Your task to perform on an android device: toggle translation in the chrome app Image 0: 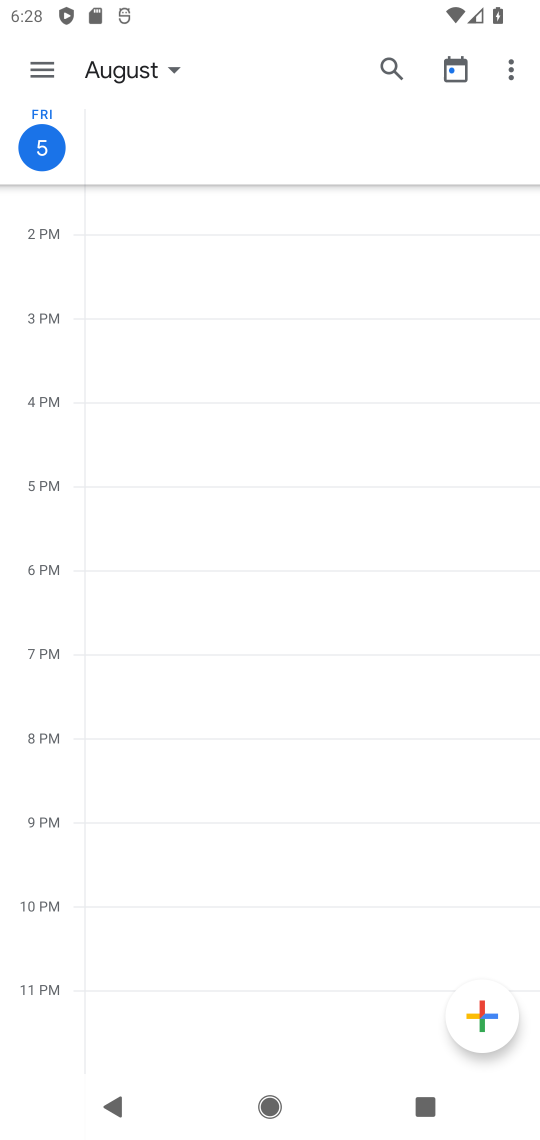
Step 0: press home button
Your task to perform on an android device: toggle translation in the chrome app Image 1: 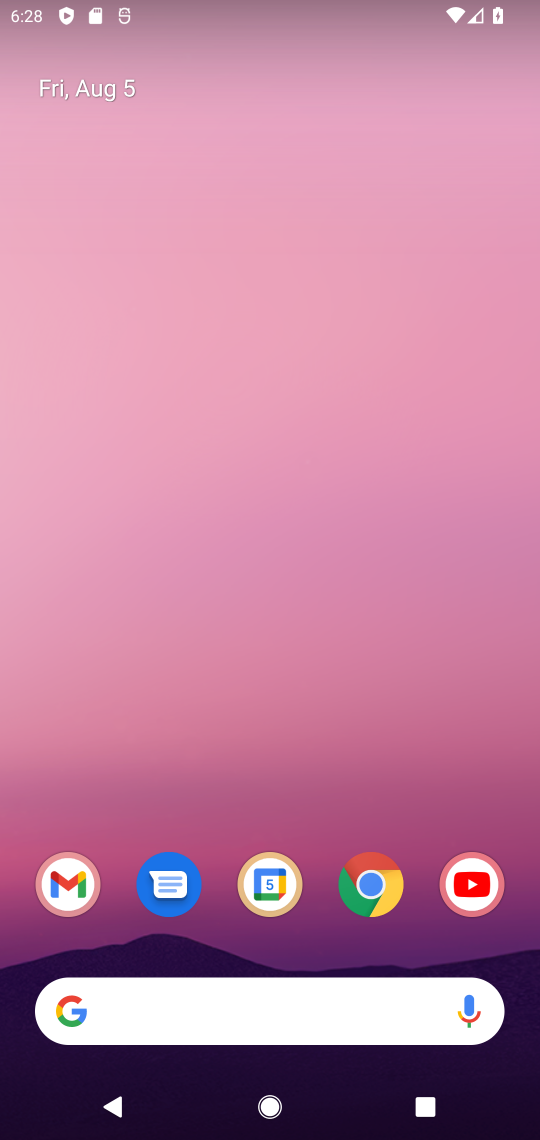
Step 1: drag from (309, 810) to (300, 3)
Your task to perform on an android device: toggle translation in the chrome app Image 2: 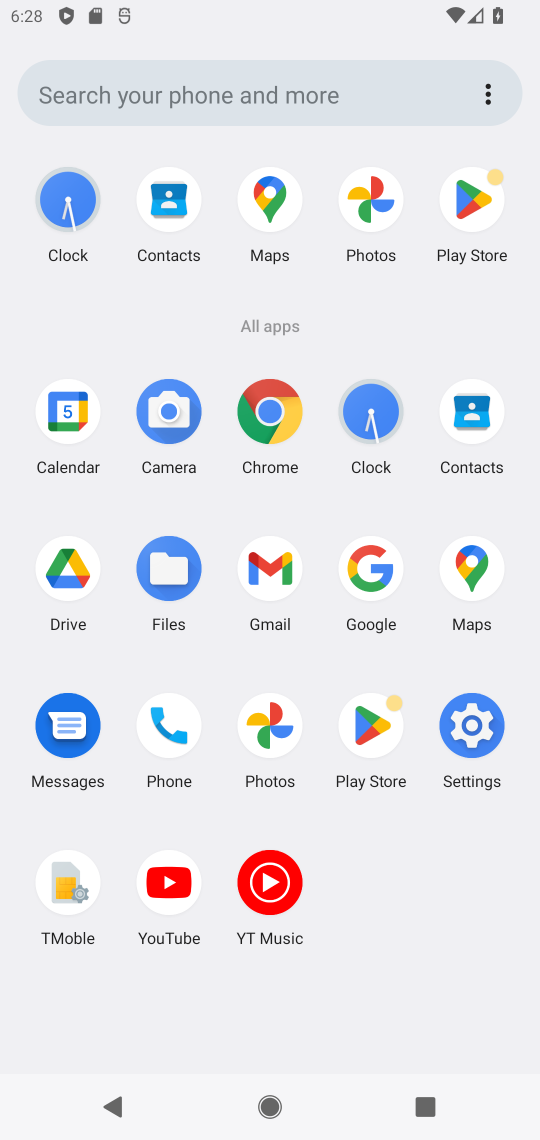
Step 2: click (264, 404)
Your task to perform on an android device: toggle translation in the chrome app Image 3: 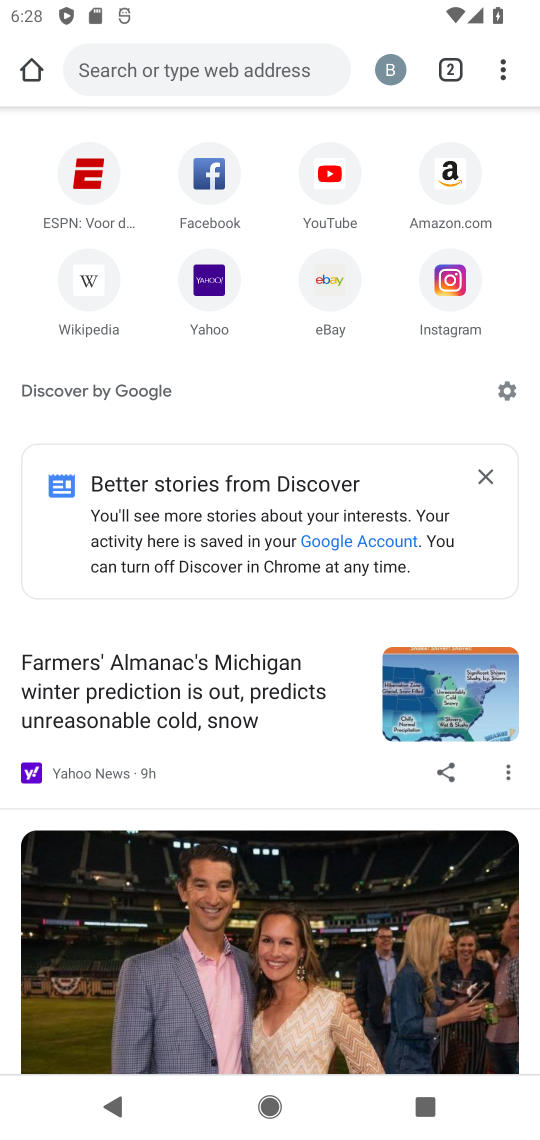
Step 3: click (494, 71)
Your task to perform on an android device: toggle translation in the chrome app Image 4: 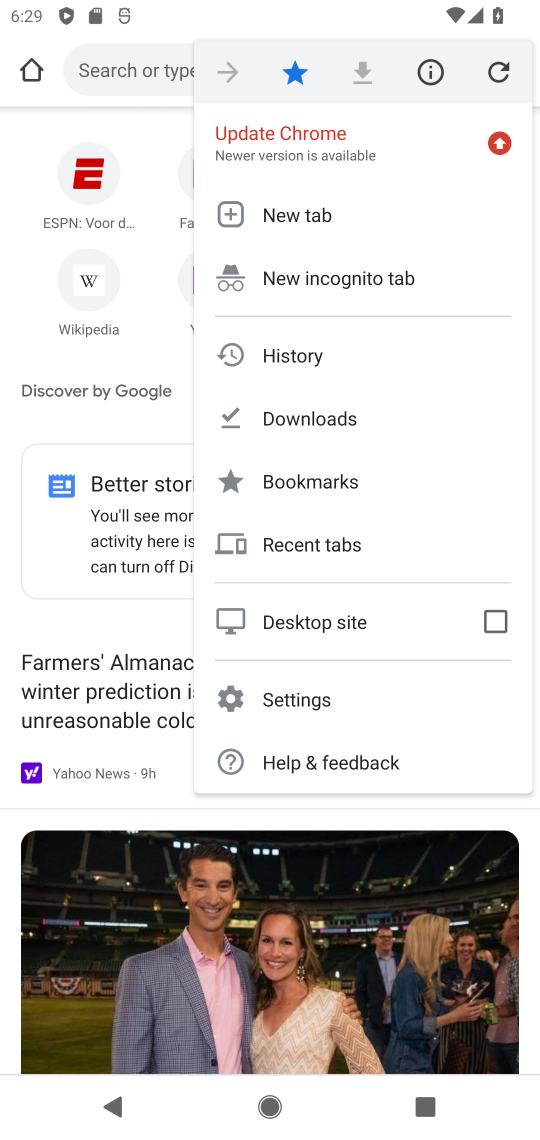
Step 4: click (335, 702)
Your task to perform on an android device: toggle translation in the chrome app Image 5: 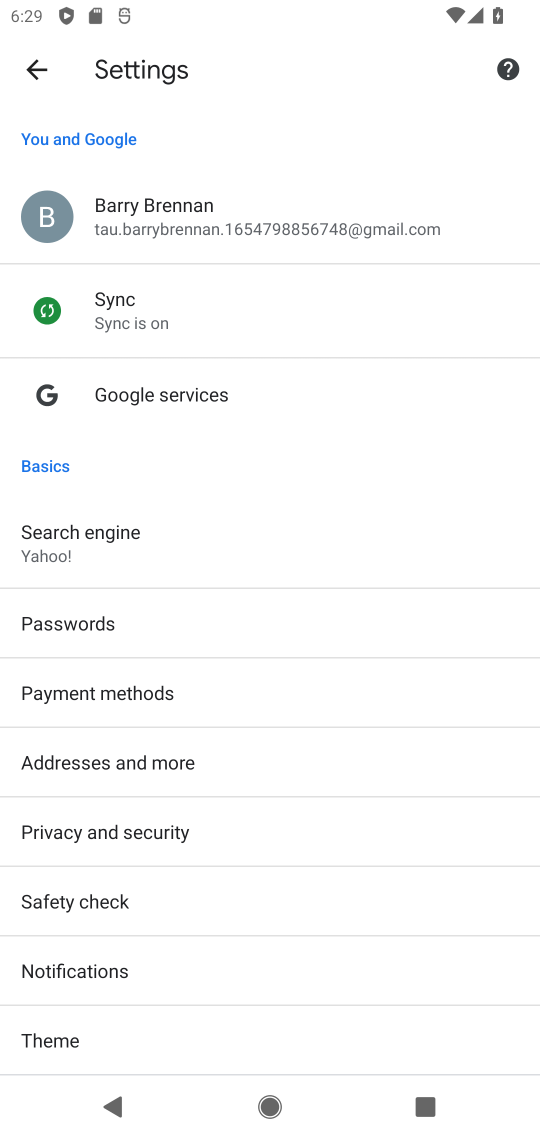
Step 5: drag from (158, 998) to (259, 283)
Your task to perform on an android device: toggle translation in the chrome app Image 6: 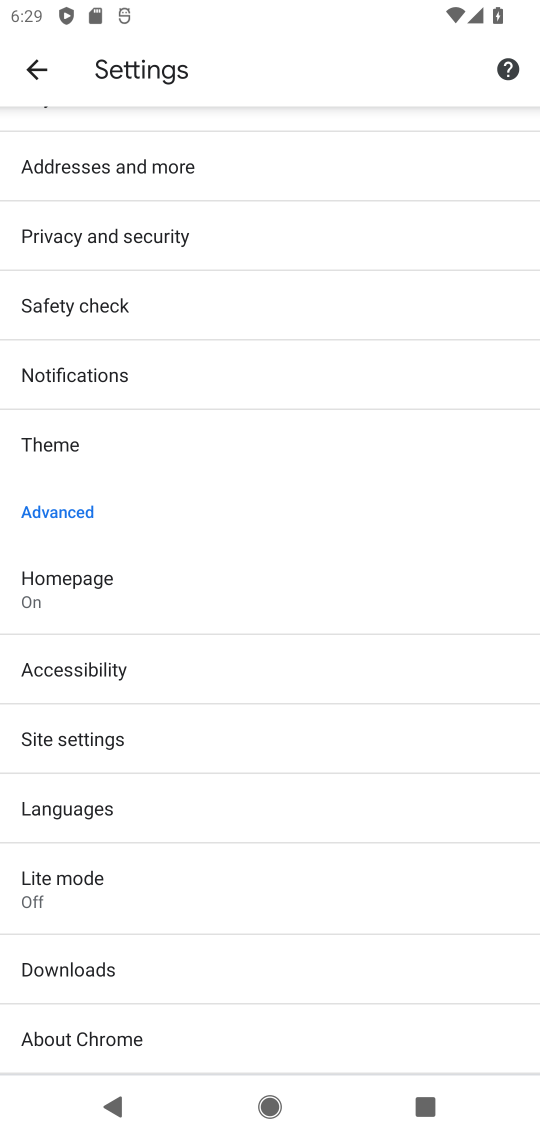
Step 6: click (150, 816)
Your task to perform on an android device: toggle translation in the chrome app Image 7: 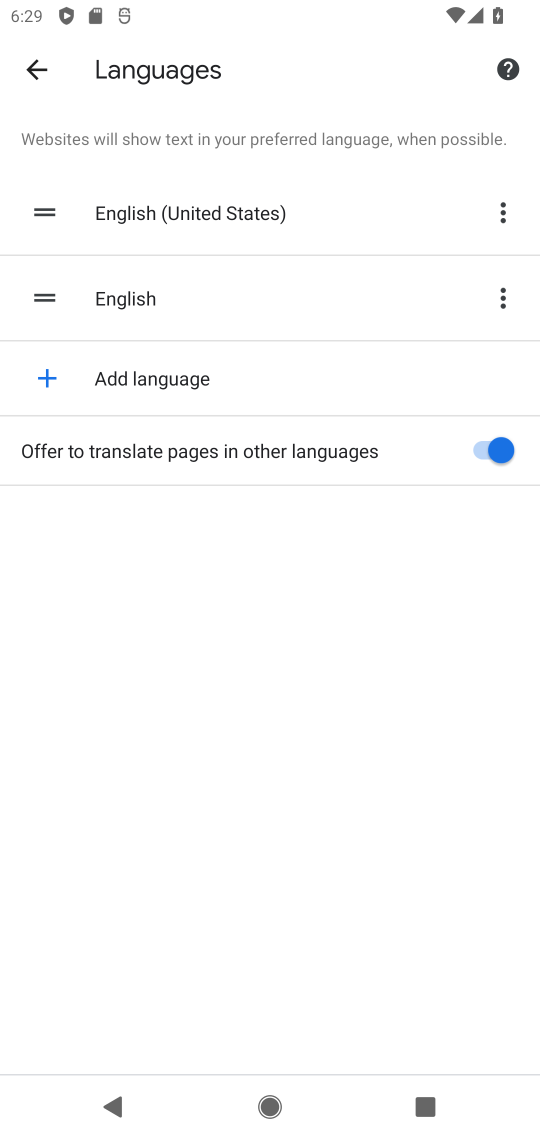
Step 7: click (490, 443)
Your task to perform on an android device: toggle translation in the chrome app Image 8: 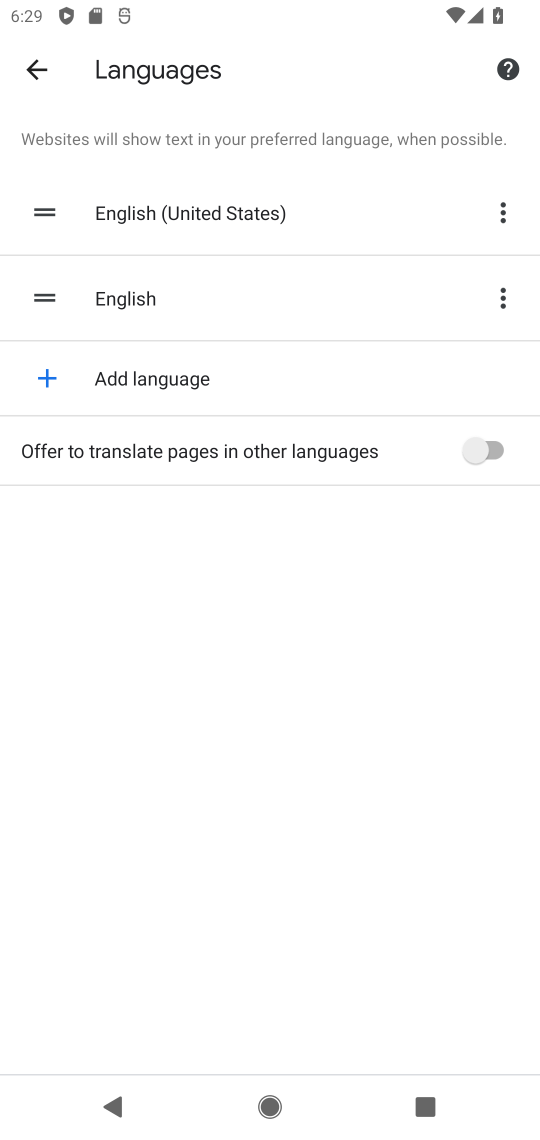
Step 8: task complete